Your task to perform on an android device: Open the stopwatch Image 0: 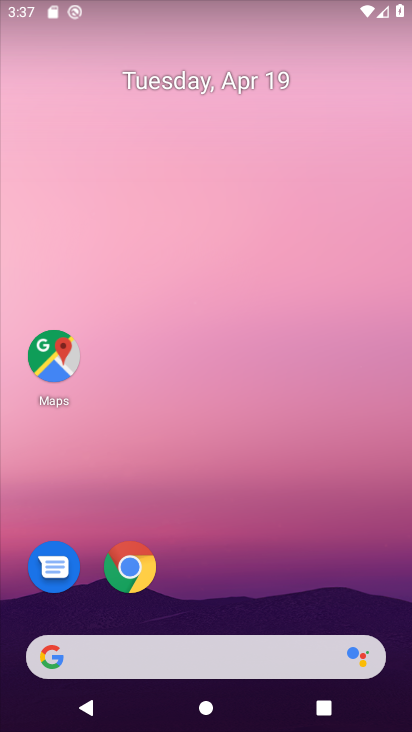
Step 0: drag from (224, 563) to (353, 91)
Your task to perform on an android device: Open the stopwatch Image 1: 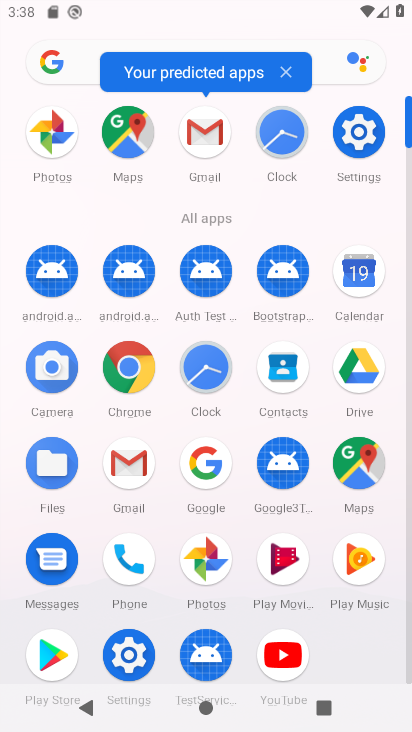
Step 1: click (213, 375)
Your task to perform on an android device: Open the stopwatch Image 2: 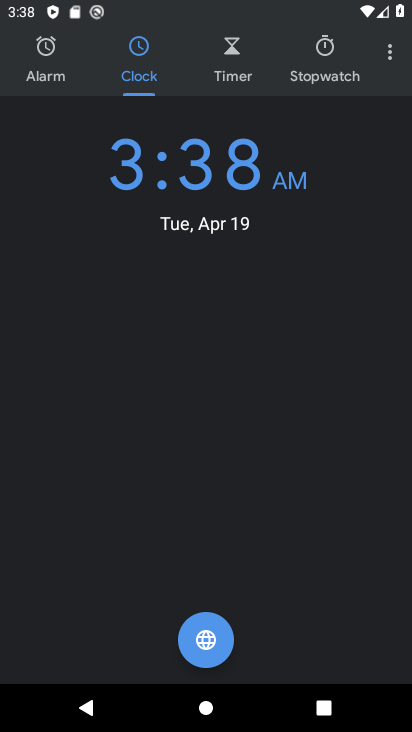
Step 2: click (323, 58)
Your task to perform on an android device: Open the stopwatch Image 3: 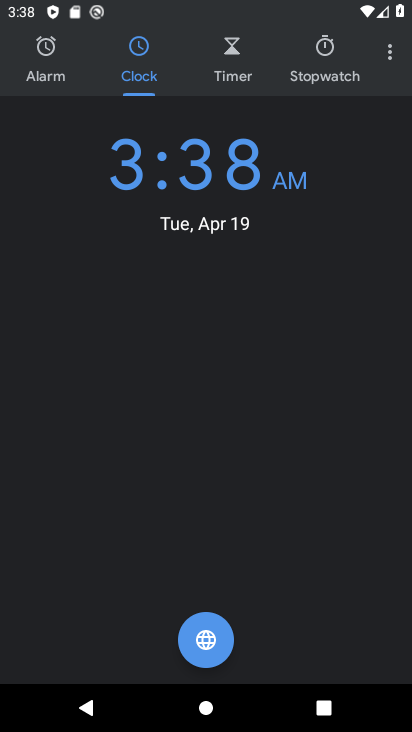
Step 3: click (324, 57)
Your task to perform on an android device: Open the stopwatch Image 4: 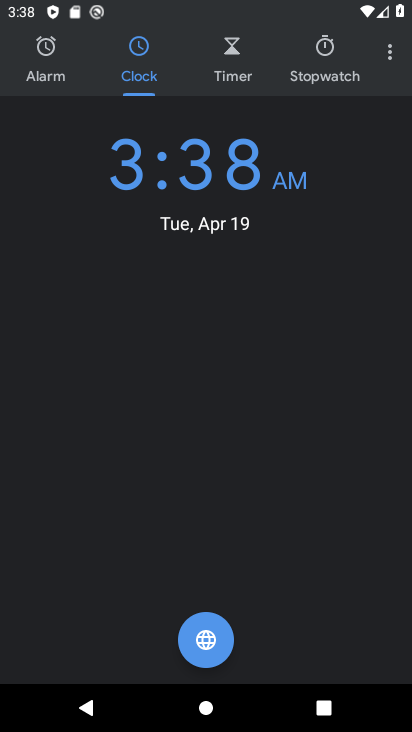
Step 4: click (336, 51)
Your task to perform on an android device: Open the stopwatch Image 5: 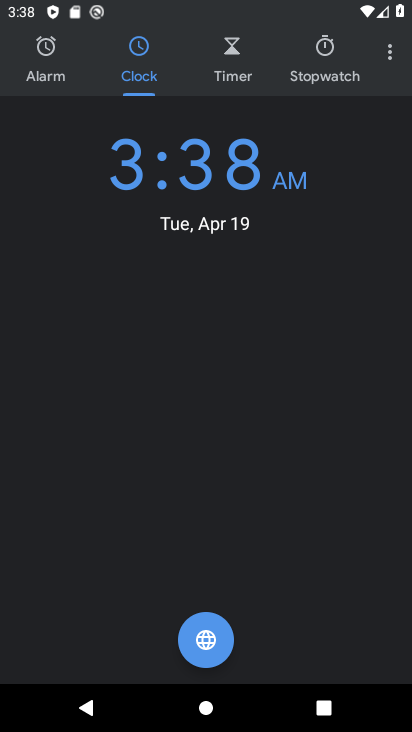
Step 5: click (330, 55)
Your task to perform on an android device: Open the stopwatch Image 6: 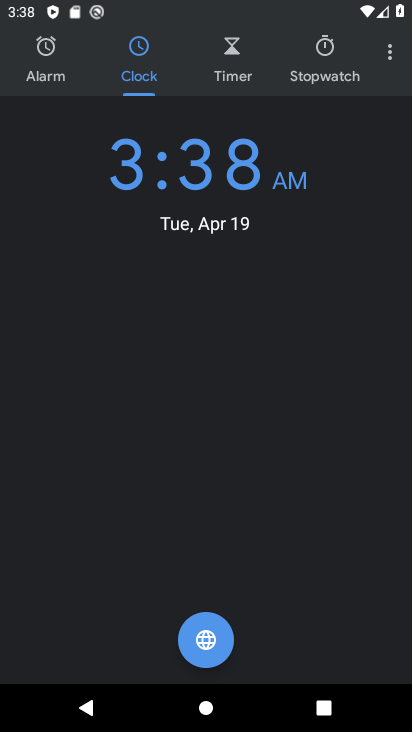
Step 6: click (330, 56)
Your task to perform on an android device: Open the stopwatch Image 7: 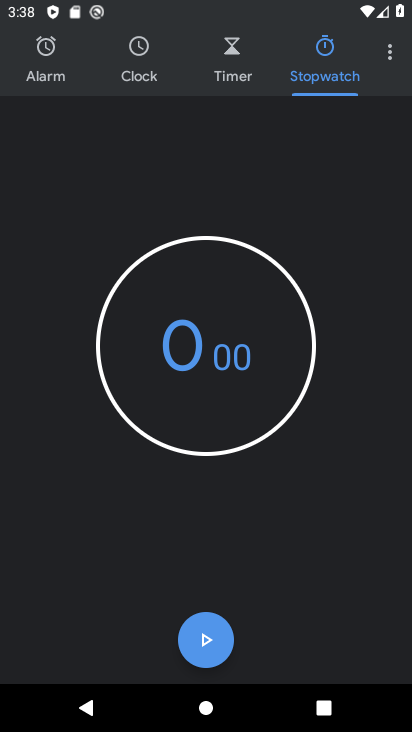
Step 7: task complete